Your task to perform on an android device: all mails in gmail Image 0: 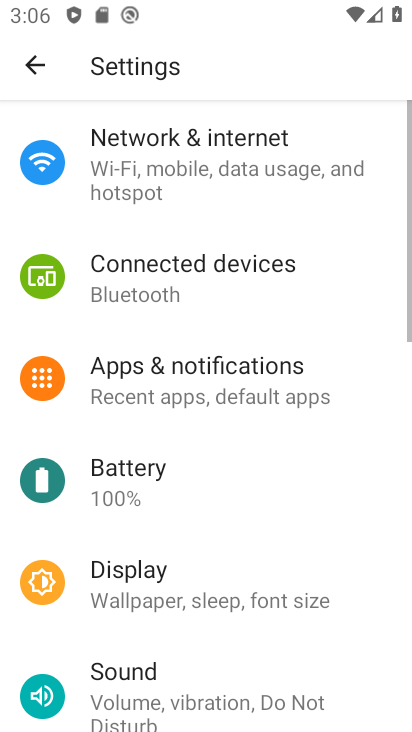
Step 0: press home button
Your task to perform on an android device: all mails in gmail Image 1: 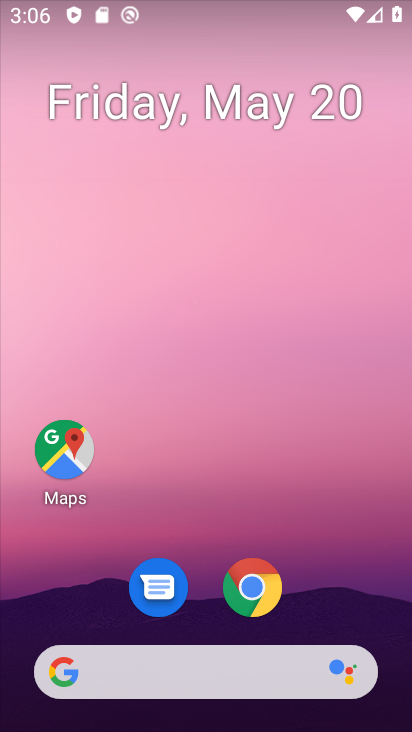
Step 1: drag from (333, 525) to (261, 44)
Your task to perform on an android device: all mails in gmail Image 2: 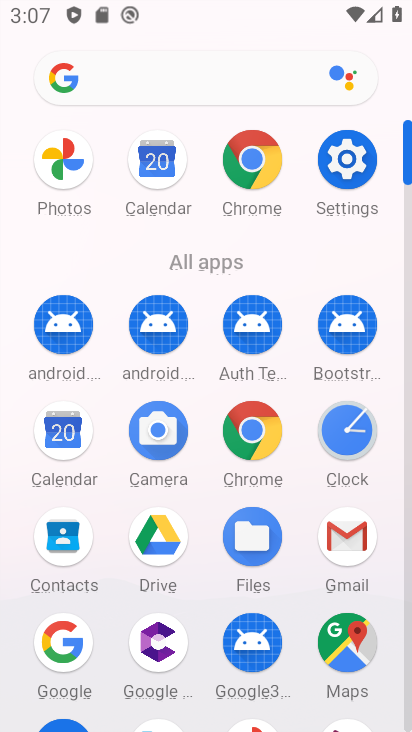
Step 2: click (344, 540)
Your task to perform on an android device: all mails in gmail Image 3: 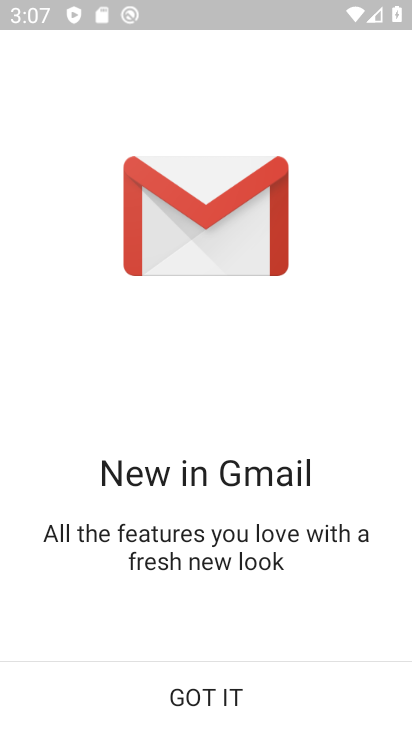
Step 3: click (300, 713)
Your task to perform on an android device: all mails in gmail Image 4: 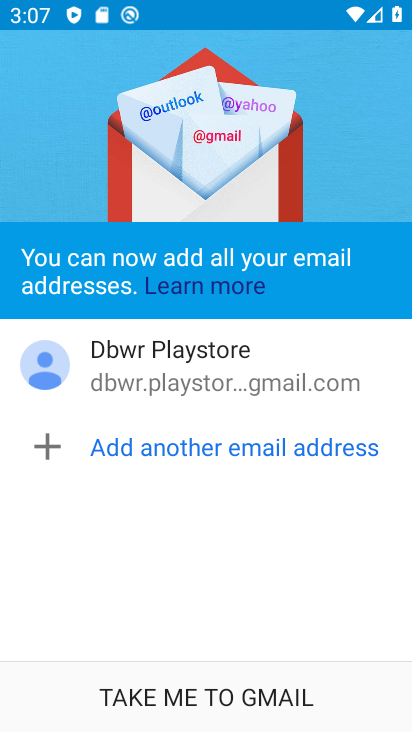
Step 4: click (290, 690)
Your task to perform on an android device: all mails in gmail Image 5: 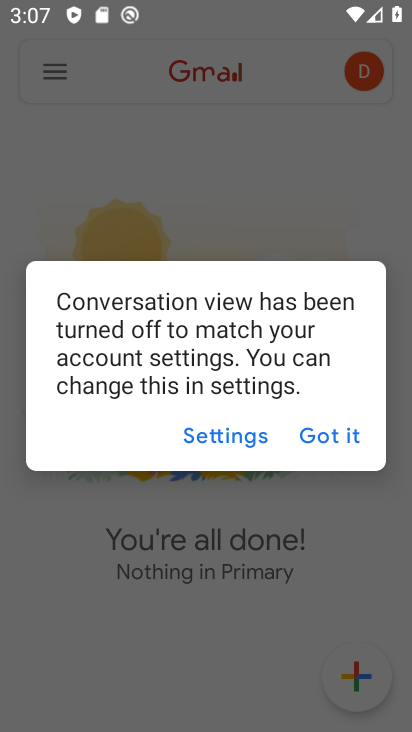
Step 5: click (350, 437)
Your task to perform on an android device: all mails in gmail Image 6: 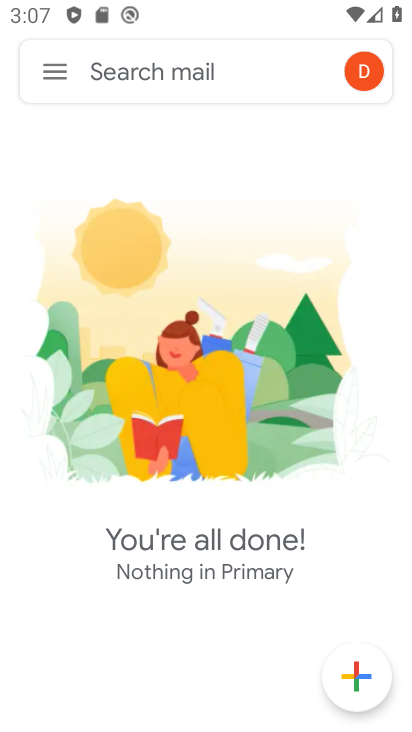
Step 6: click (49, 66)
Your task to perform on an android device: all mails in gmail Image 7: 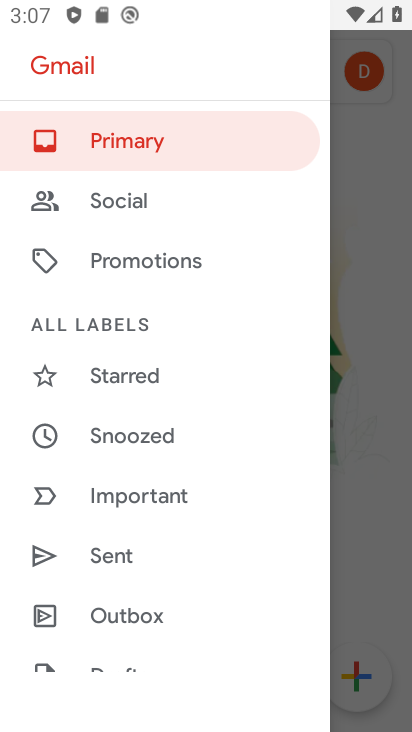
Step 7: drag from (161, 588) to (186, 295)
Your task to perform on an android device: all mails in gmail Image 8: 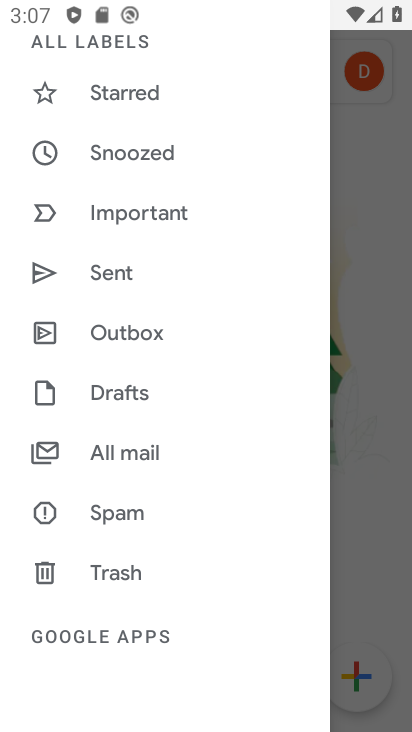
Step 8: drag from (192, 623) to (188, 188)
Your task to perform on an android device: all mails in gmail Image 9: 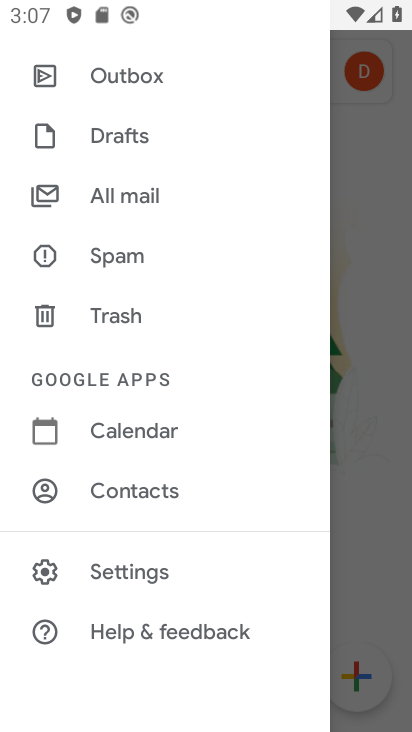
Step 9: click (110, 201)
Your task to perform on an android device: all mails in gmail Image 10: 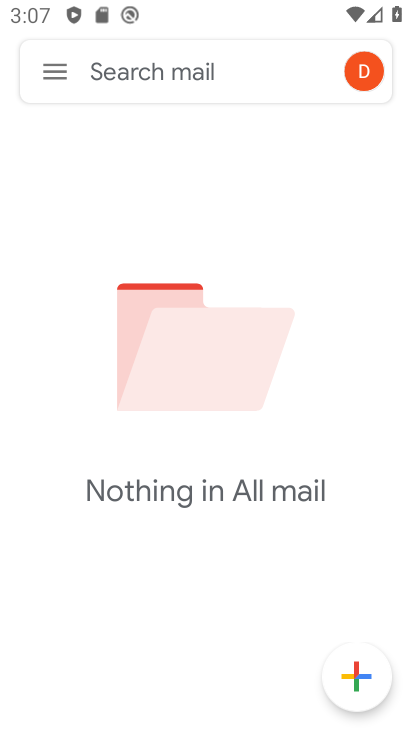
Step 10: task complete